Your task to perform on an android device: Open the web browser Image 0: 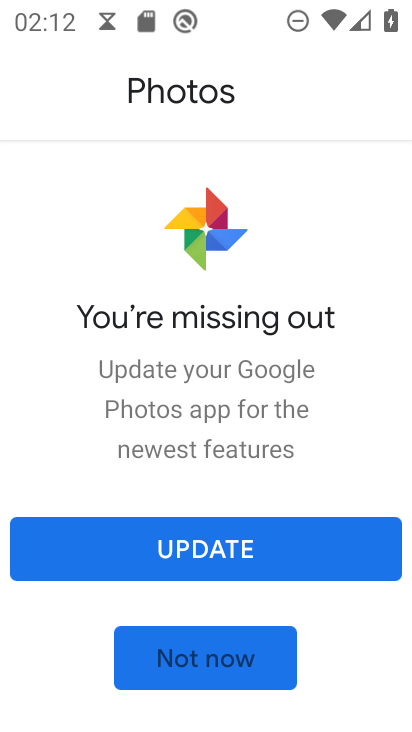
Step 0: press home button
Your task to perform on an android device: Open the web browser Image 1: 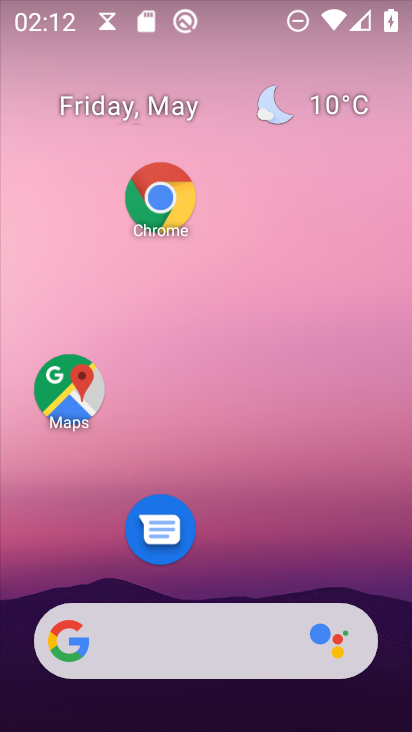
Step 1: click (159, 188)
Your task to perform on an android device: Open the web browser Image 2: 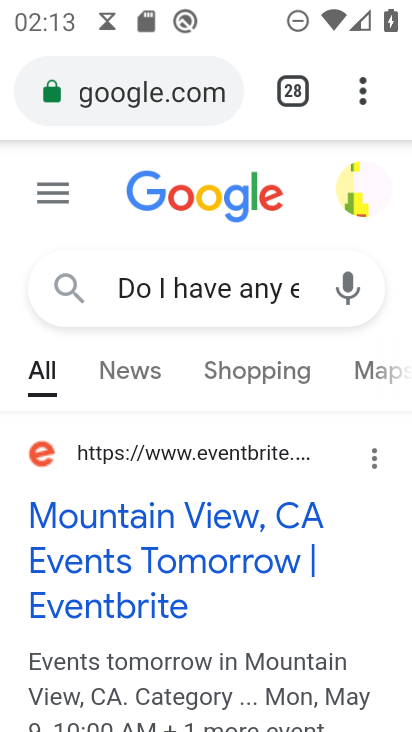
Step 2: task complete